Your task to perform on an android device: Open Google Chrome and click the shortcut for Amazon.com Image 0: 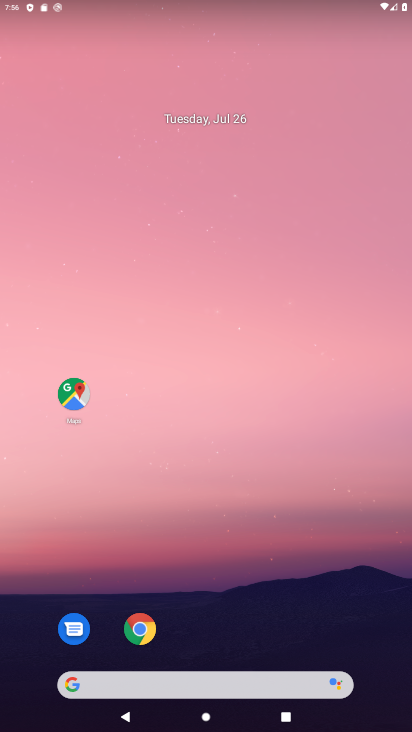
Step 0: press home button
Your task to perform on an android device: Open Google Chrome and click the shortcut for Amazon.com Image 1: 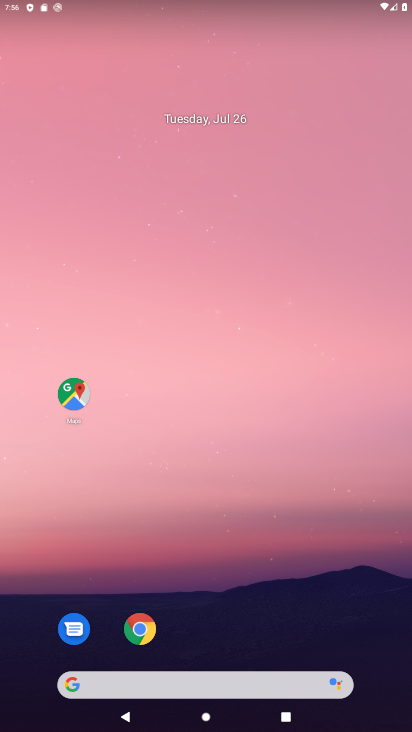
Step 1: click (138, 623)
Your task to perform on an android device: Open Google Chrome and click the shortcut for Amazon.com Image 2: 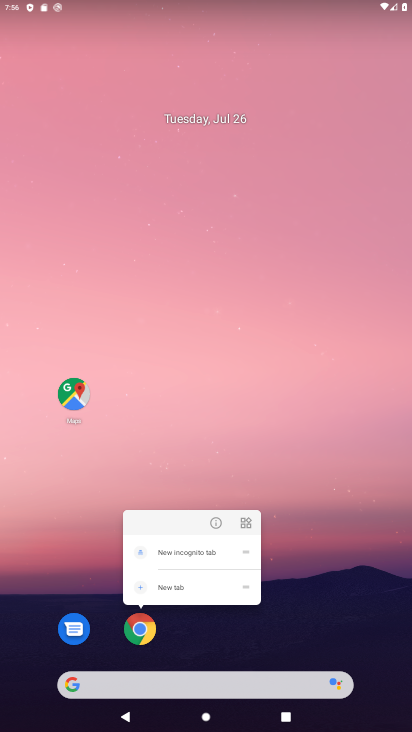
Step 2: click (138, 623)
Your task to perform on an android device: Open Google Chrome and click the shortcut for Amazon.com Image 3: 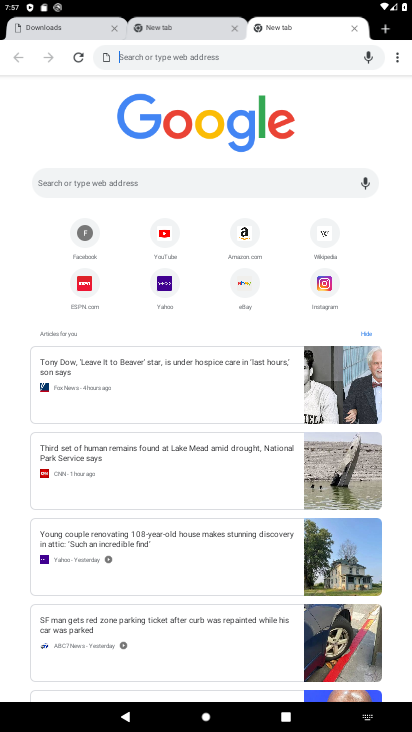
Step 3: click (245, 228)
Your task to perform on an android device: Open Google Chrome and click the shortcut for Amazon.com Image 4: 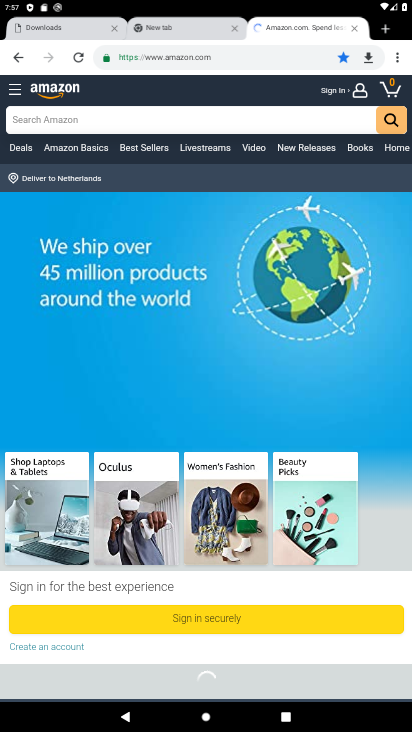
Step 4: click (235, 26)
Your task to perform on an android device: Open Google Chrome and click the shortcut for Amazon.com Image 5: 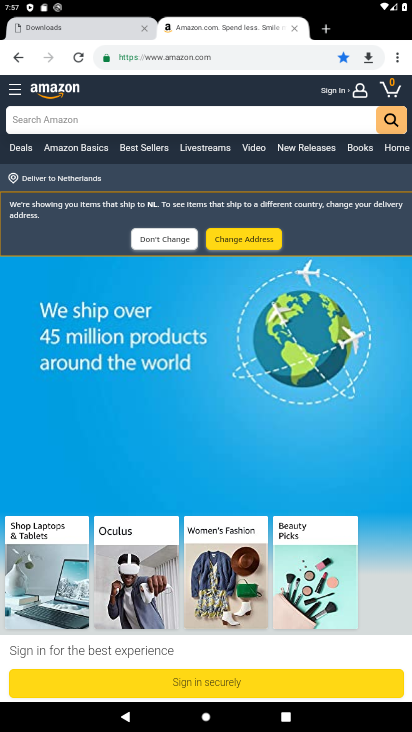
Step 5: task complete